Your task to perform on an android device: clear history in the chrome app Image 0: 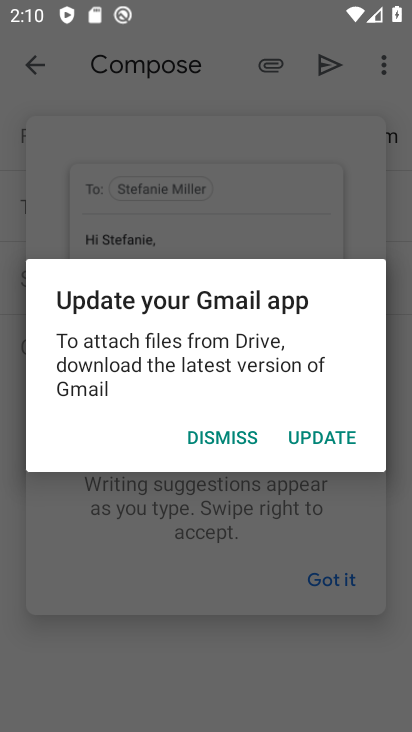
Step 0: press home button
Your task to perform on an android device: clear history in the chrome app Image 1: 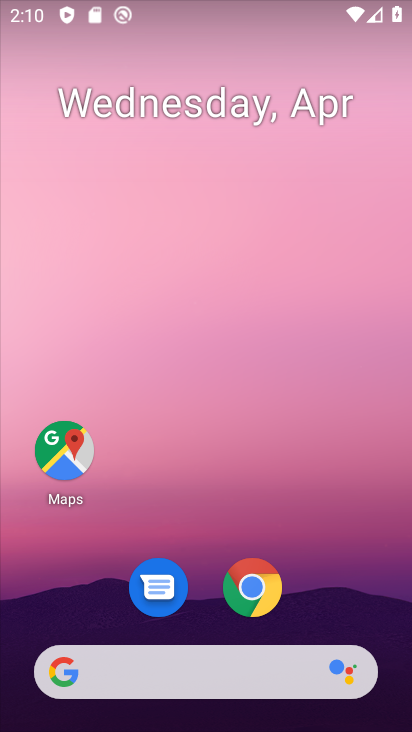
Step 1: click (273, 601)
Your task to perform on an android device: clear history in the chrome app Image 2: 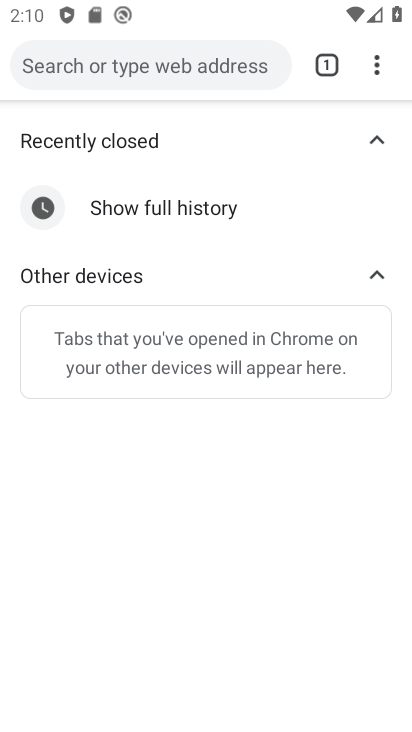
Step 2: click (374, 52)
Your task to perform on an android device: clear history in the chrome app Image 3: 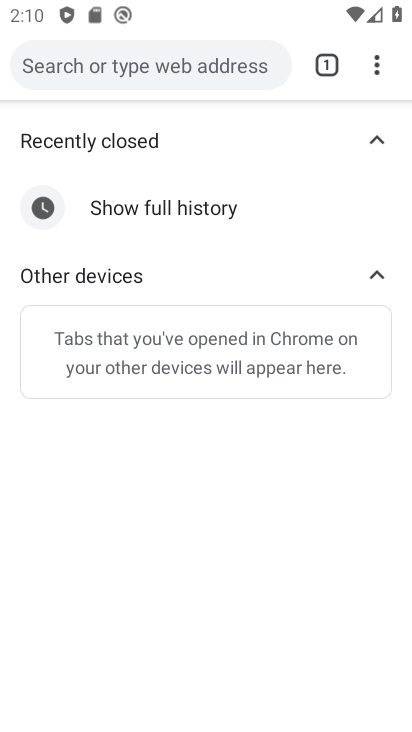
Step 3: task complete